Your task to perform on an android device: manage bookmarks in the chrome app Image 0: 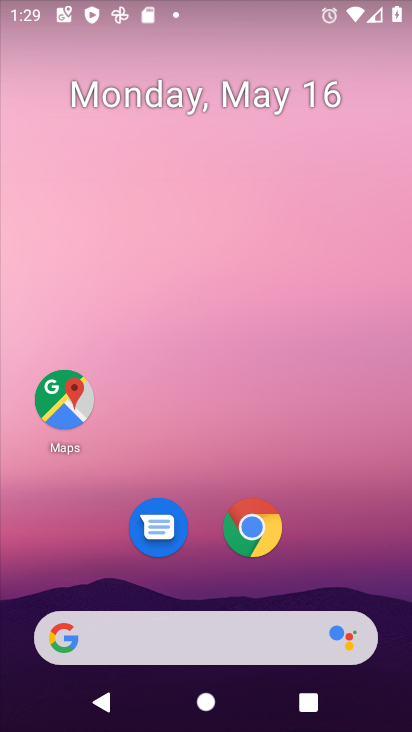
Step 0: drag from (334, 569) to (255, 187)
Your task to perform on an android device: manage bookmarks in the chrome app Image 1: 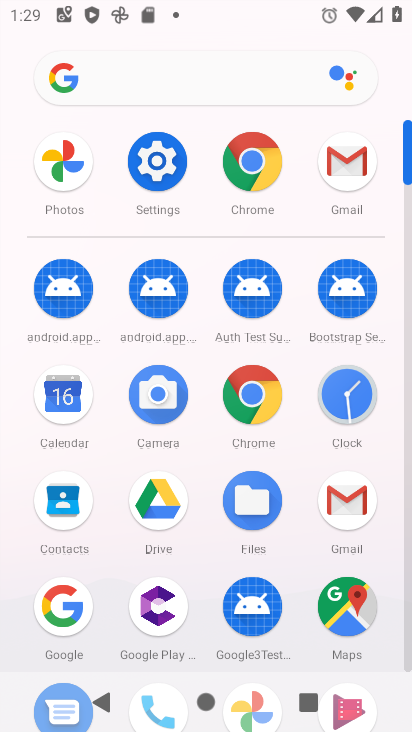
Step 1: click (260, 190)
Your task to perform on an android device: manage bookmarks in the chrome app Image 2: 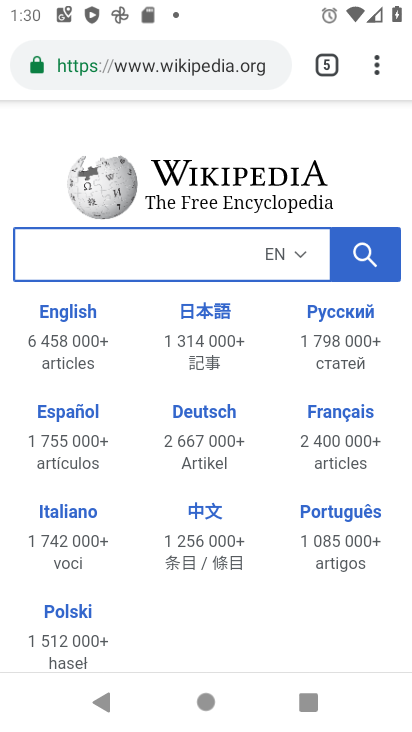
Step 2: click (372, 75)
Your task to perform on an android device: manage bookmarks in the chrome app Image 3: 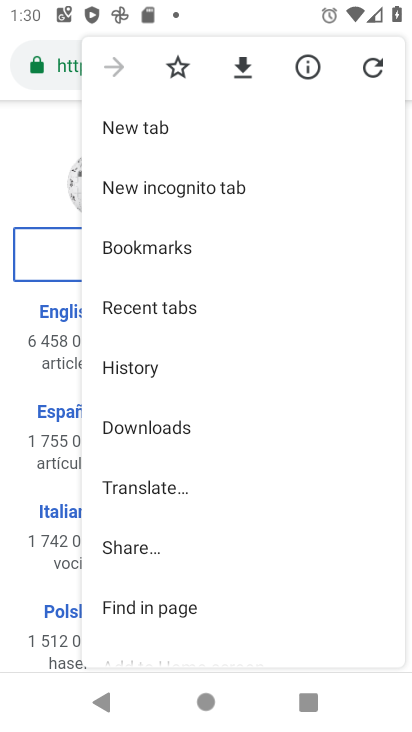
Step 3: click (218, 254)
Your task to perform on an android device: manage bookmarks in the chrome app Image 4: 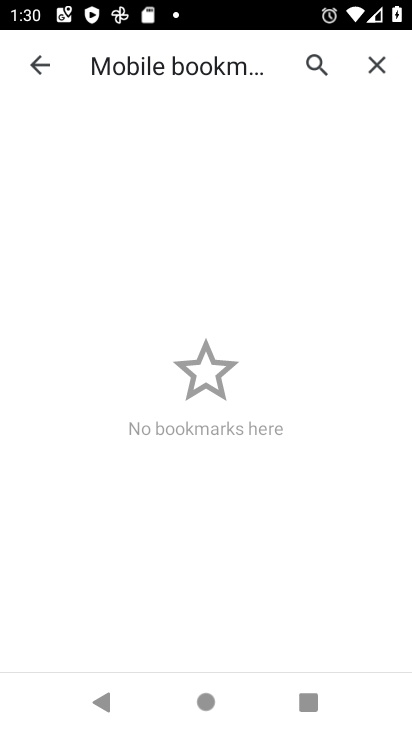
Step 4: task complete